Your task to perform on an android device: delete a single message in the gmail app Image 0: 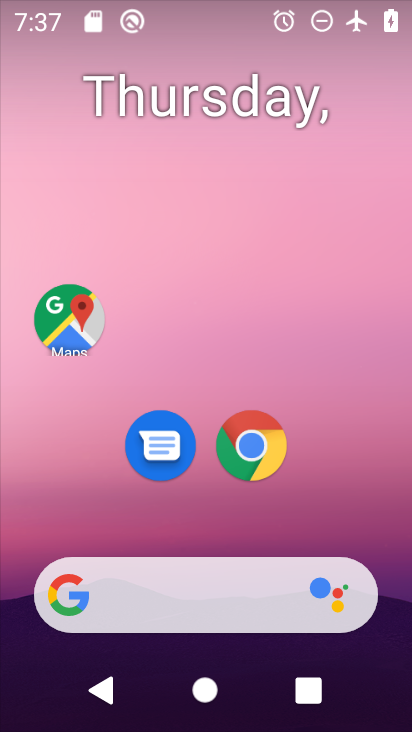
Step 0: drag from (350, 463) to (257, 78)
Your task to perform on an android device: delete a single message in the gmail app Image 1: 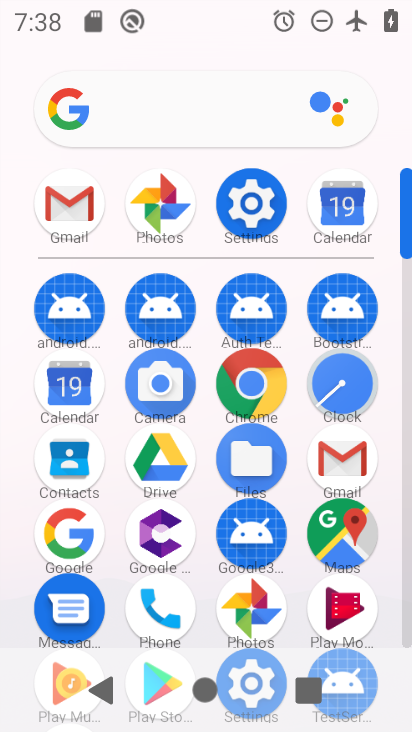
Step 1: click (79, 209)
Your task to perform on an android device: delete a single message in the gmail app Image 2: 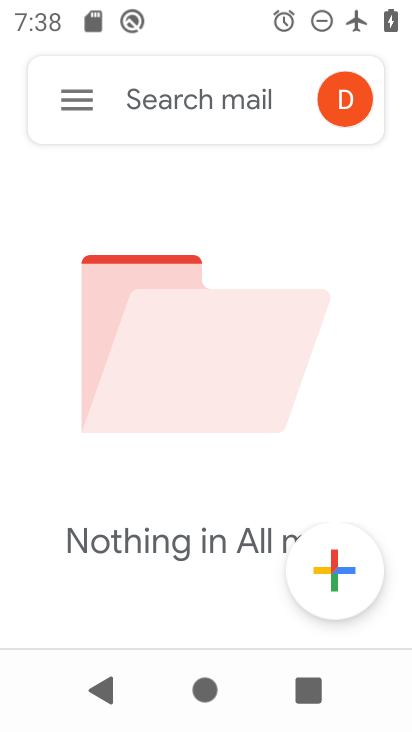
Step 2: click (70, 100)
Your task to perform on an android device: delete a single message in the gmail app Image 3: 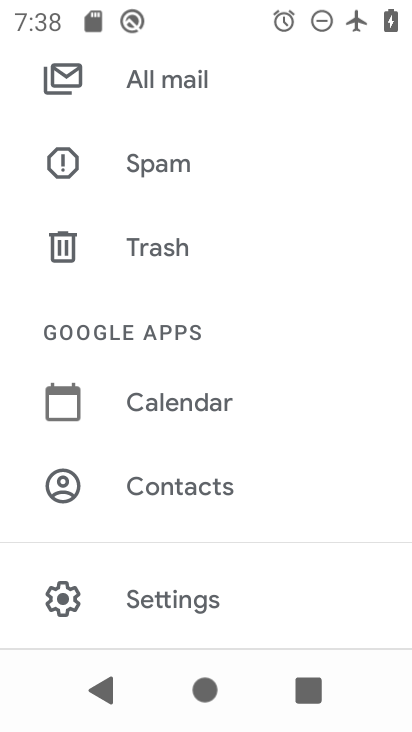
Step 3: click (158, 76)
Your task to perform on an android device: delete a single message in the gmail app Image 4: 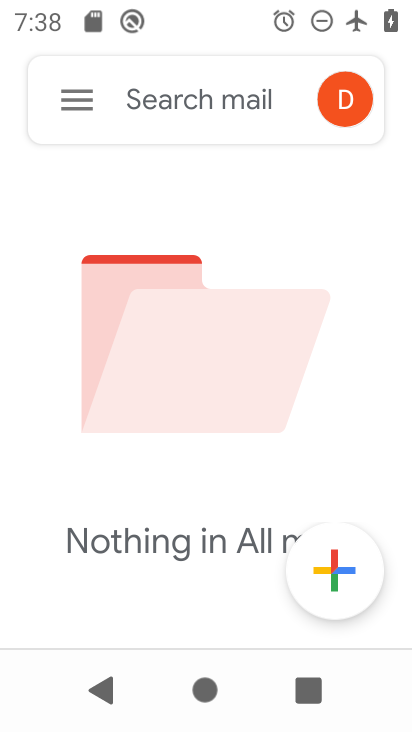
Step 4: task complete